Your task to perform on an android device: Open Youtube and go to "Your channel" Image 0: 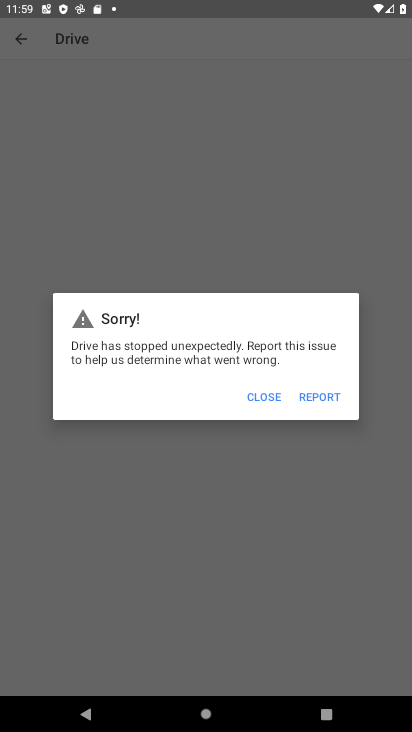
Step 0: press home button
Your task to perform on an android device: Open Youtube and go to "Your channel" Image 1: 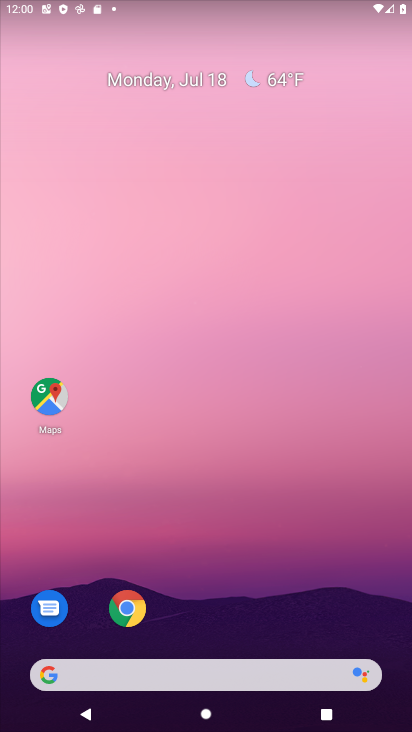
Step 1: drag from (353, 618) to (212, 30)
Your task to perform on an android device: Open Youtube and go to "Your channel" Image 2: 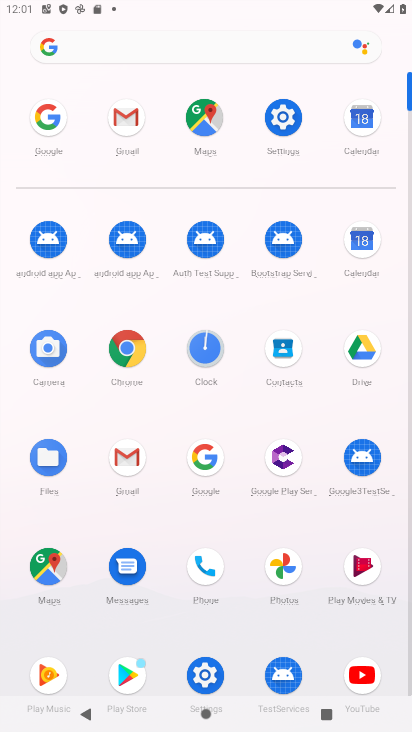
Step 2: click (354, 675)
Your task to perform on an android device: Open Youtube and go to "Your channel" Image 3: 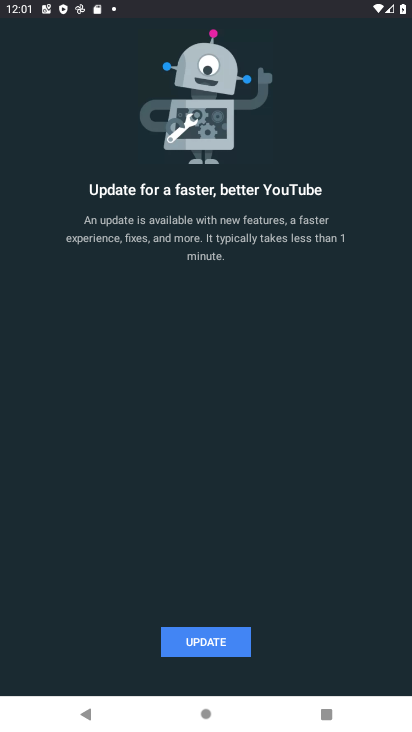
Step 3: click (179, 645)
Your task to perform on an android device: Open Youtube and go to "Your channel" Image 4: 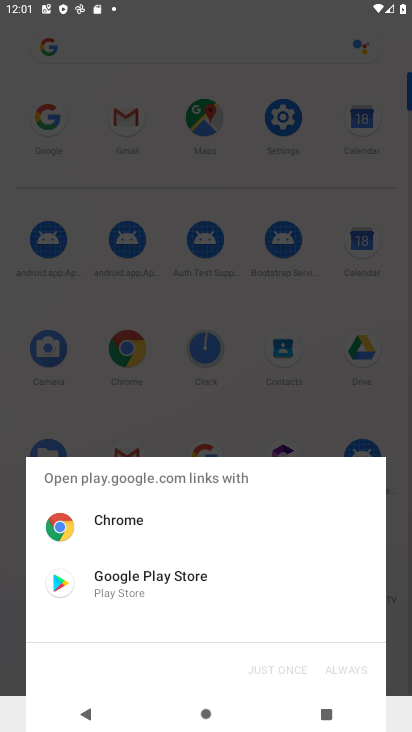
Step 4: click (185, 577)
Your task to perform on an android device: Open Youtube and go to "Your channel" Image 5: 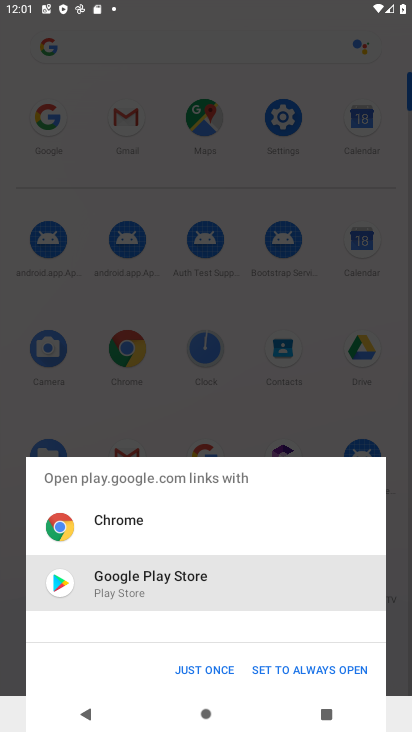
Step 5: click (205, 675)
Your task to perform on an android device: Open Youtube and go to "Your channel" Image 6: 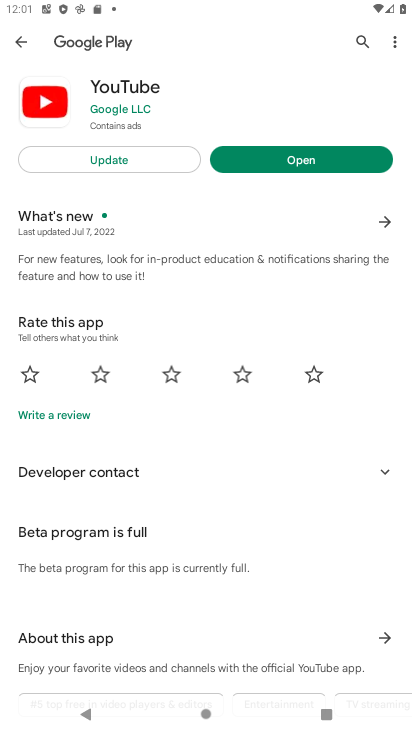
Step 6: click (110, 156)
Your task to perform on an android device: Open Youtube and go to "Your channel" Image 7: 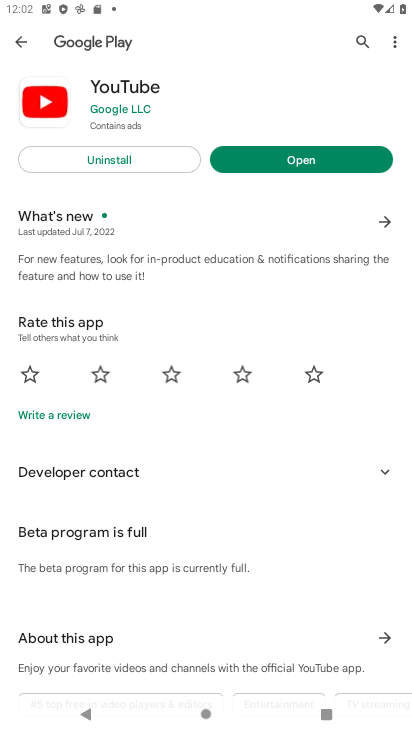
Step 7: click (247, 163)
Your task to perform on an android device: Open Youtube and go to "Your channel" Image 8: 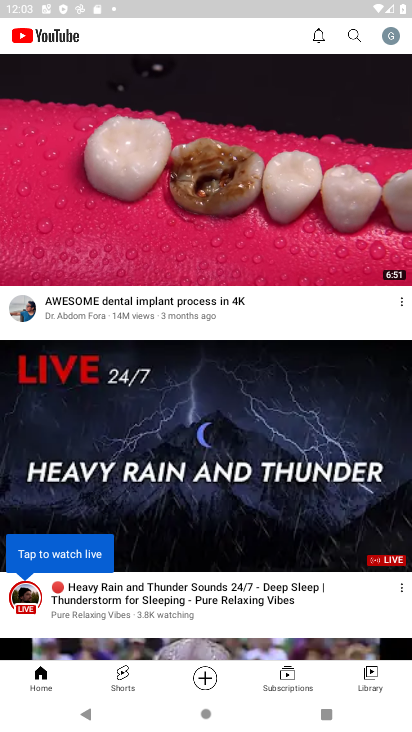
Step 8: click (394, 34)
Your task to perform on an android device: Open Youtube and go to "Your channel" Image 9: 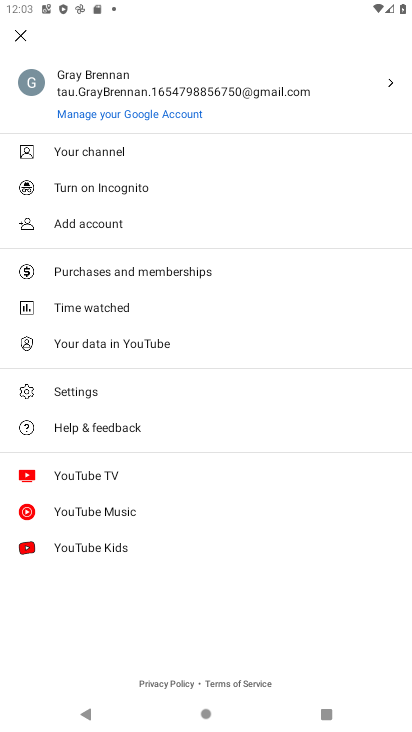
Step 9: click (64, 151)
Your task to perform on an android device: Open Youtube and go to "Your channel" Image 10: 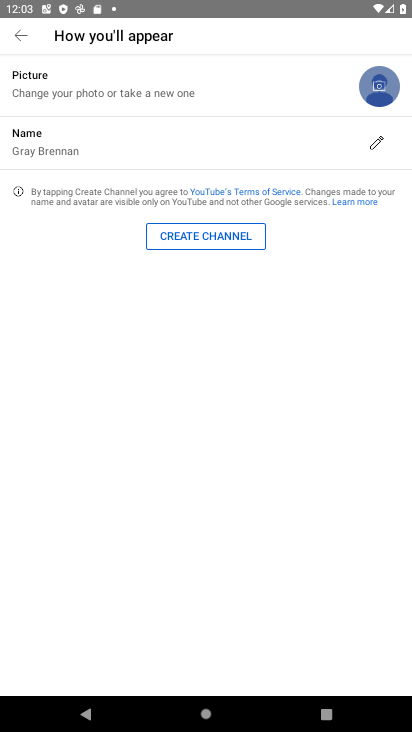
Step 10: task complete